Your task to perform on an android device: Open Chrome and go to the settings page Image 0: 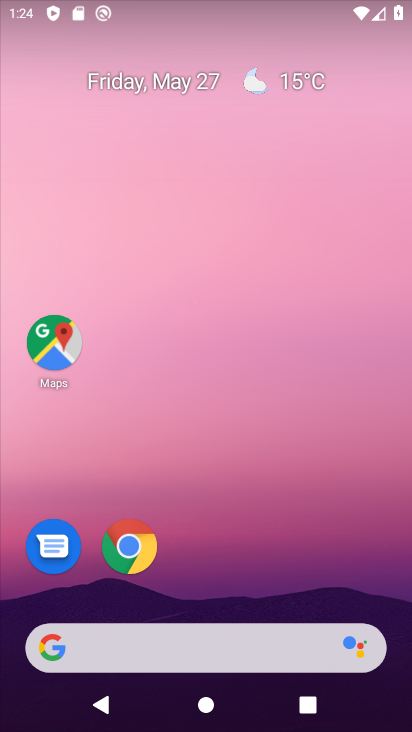
Step 0: drag from (357, 608) to (309, 128)
Your task to perform on an android device: Open Chrome and go to the settings page Image 1: 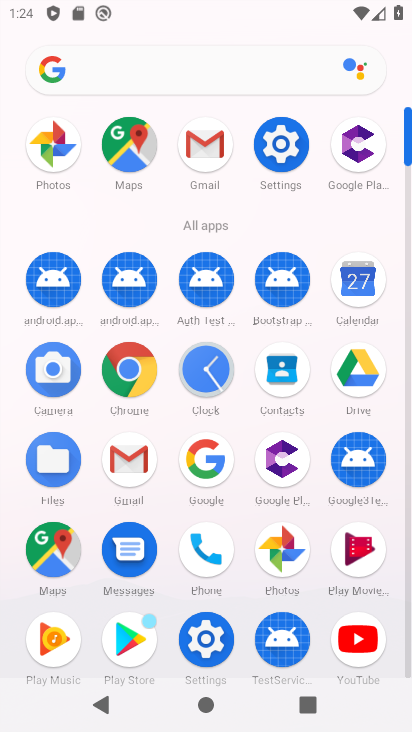
Step 1: click (142, 388)
Your task to perform on an android device: Open Chrome and go to the settings page Image 2: 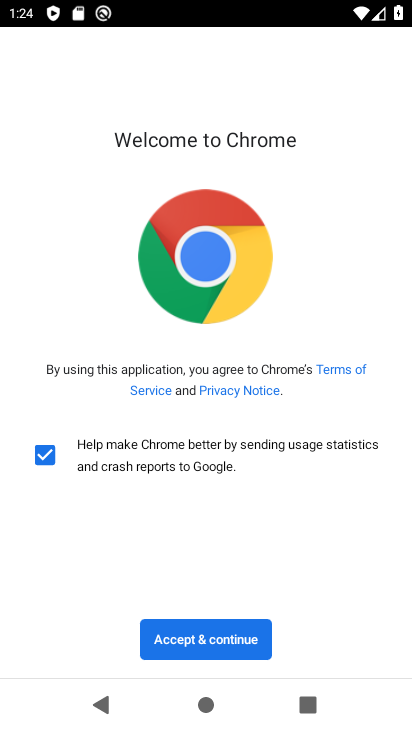
Step 2: click (241, 644)
Your task to perform on an android device: Open Chrome and go to the settings page Image 3: 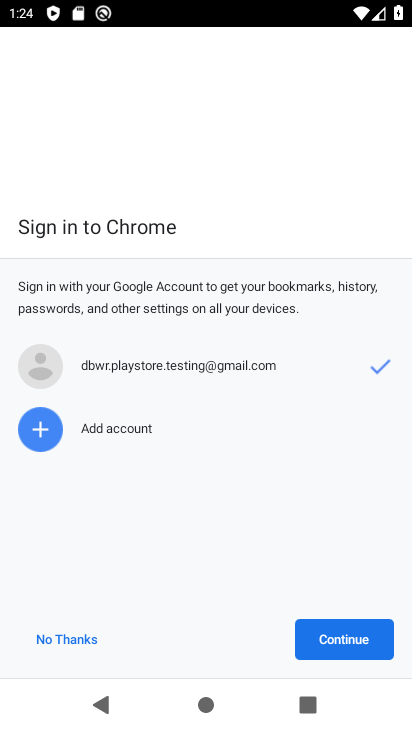
Step 3: click (339, 643)
Your task to perform on an android device: Open Chrome and go to the settings page Image 4: 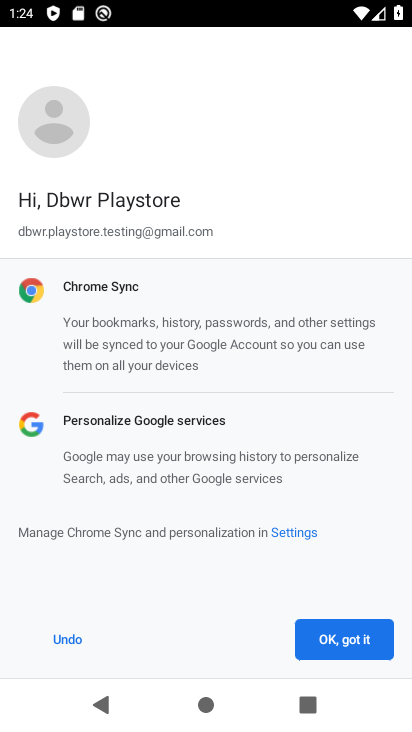
Step 4: click (340, 641)
Your task to perform on an android device: Open Chrome and go to the settings page Image 5: 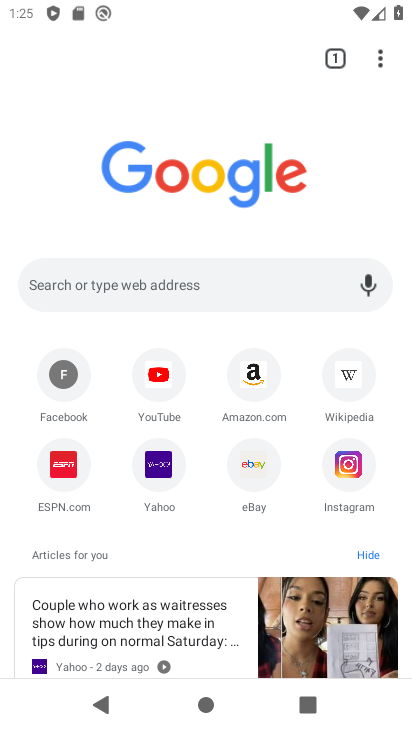
Step 5: task complete